Your task to perform on an android device: Go to eBay Image 0: 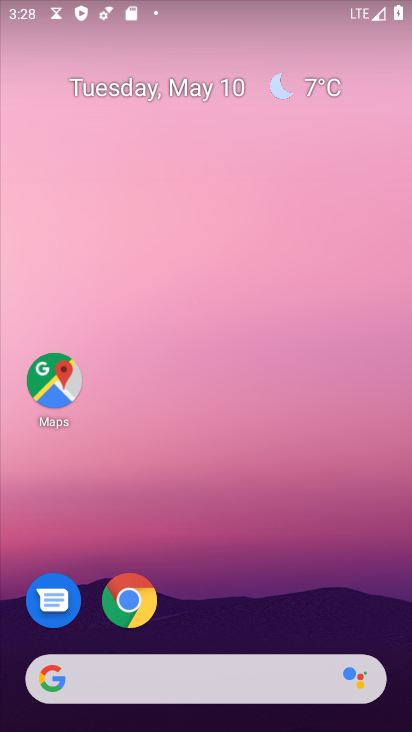
Step 0: drag from (215, 546) to (201, 186)
Your task to perform on an android device: Go to eBay Image 1: 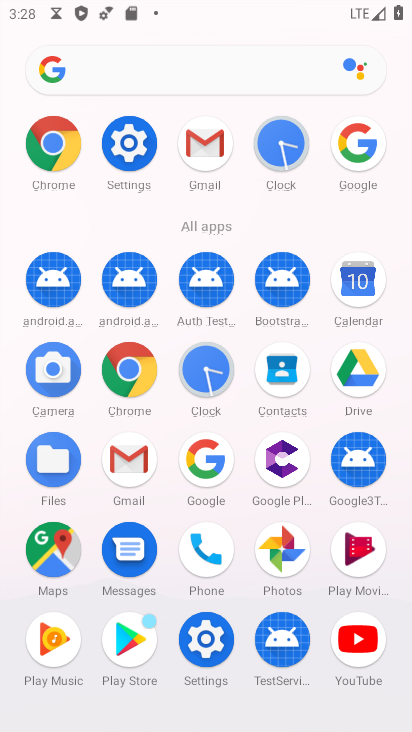
Step 1: click (46, 162)
Your task to perform on an android device: Go to eBay Image 2: 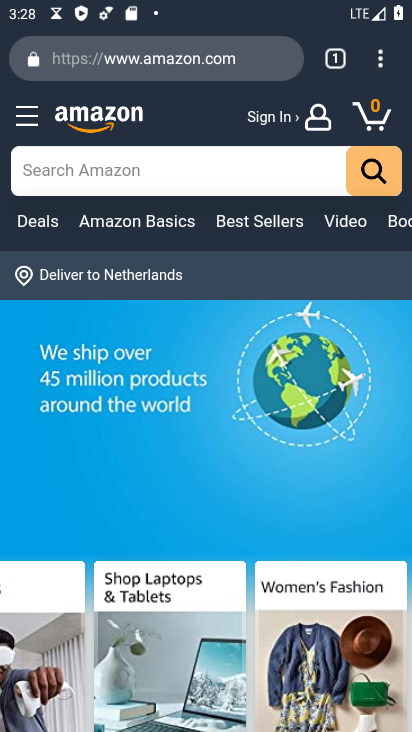
Step 2: click (145, 61)
Your task to perform on an android device: Go to eBay Image 3: 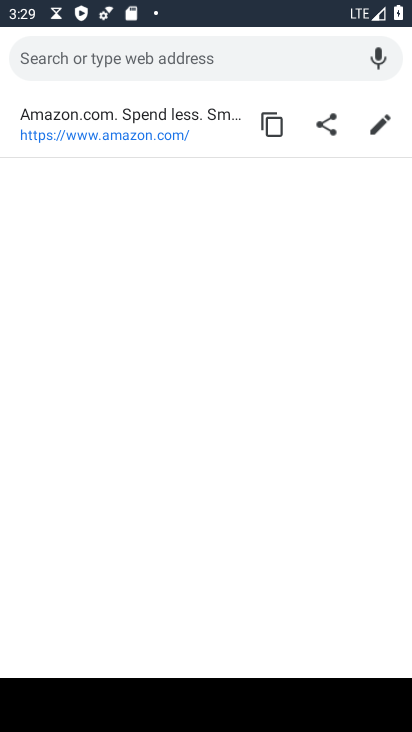
Step 3: type "eBay"
Your task to perform on an android device: Go to eBay Image 4: 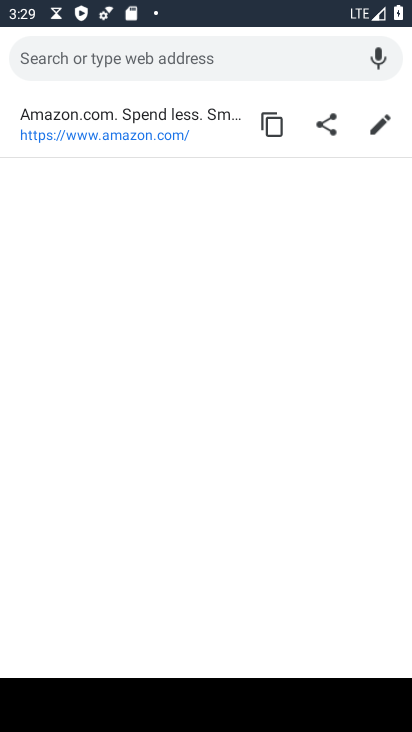
Step 4: click (315, 47)
Your task to perform on an android device: Go to eBay Image 5: 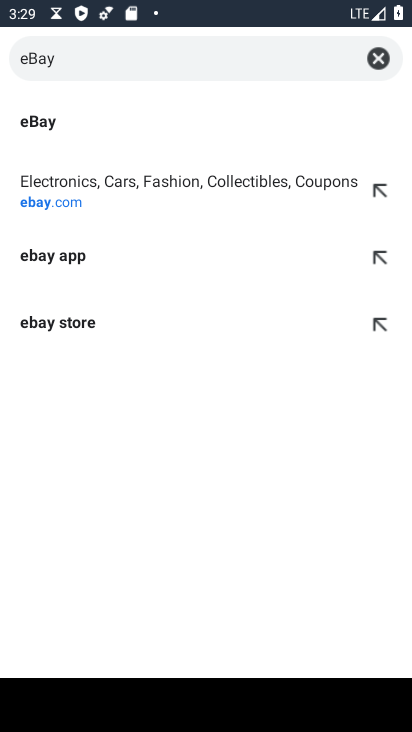
Step 5: click (246, 126)
Your task to perform on an android device: Go to eBay Image 6: 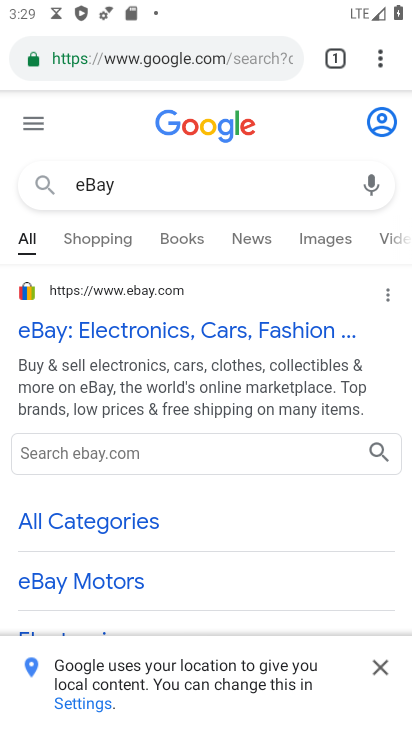
Step 6: drag from (193, 494) to (274, 220)
Your task to perform on an android device: Go to eBay Image 7: 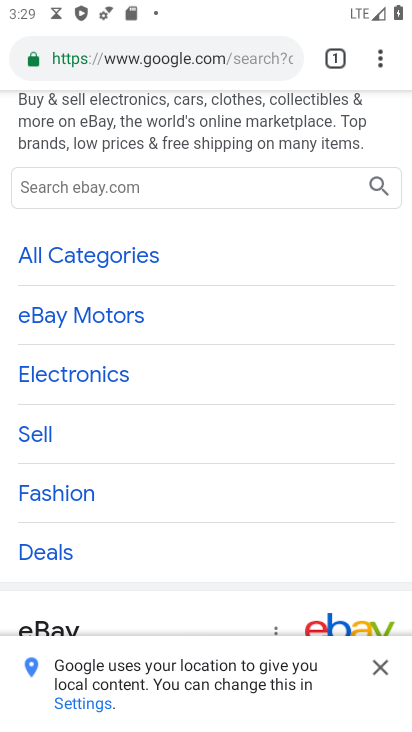
Step 7: drag from (264, 172) to (296, 524)
Your task to perform on an android device: Go to eBay Image 8: 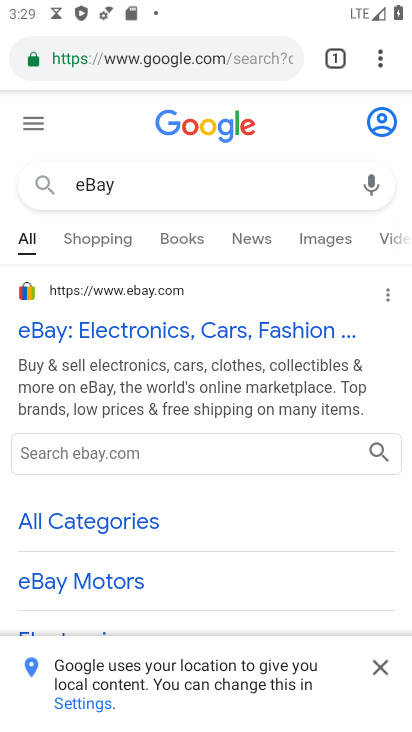
Step 8: click (267, 316)
Your task to perform on an android device: Go to eBay Image 9: 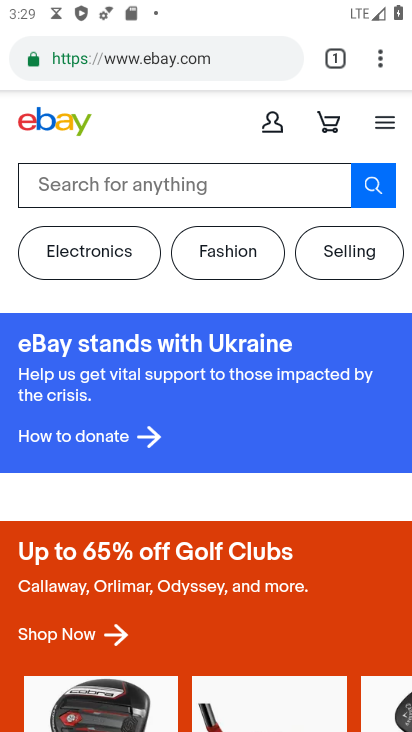
Step 9: task complete